Your task to perform on an android device: allow cookies in the chrome app Image 0: 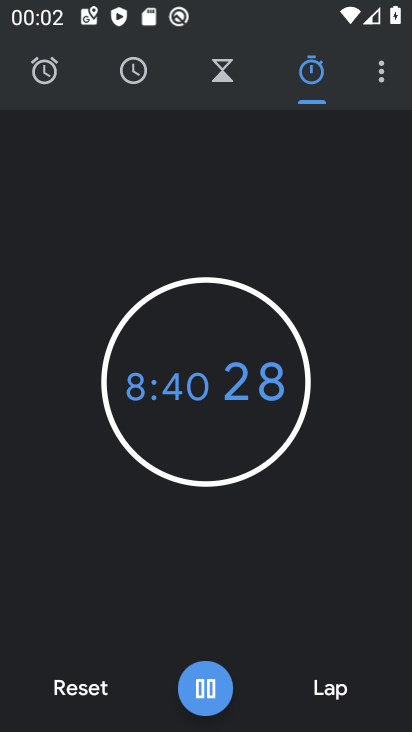
Step 0: press home button
Your task to perform on an android device: allow cookies in the chrome app Image 1: 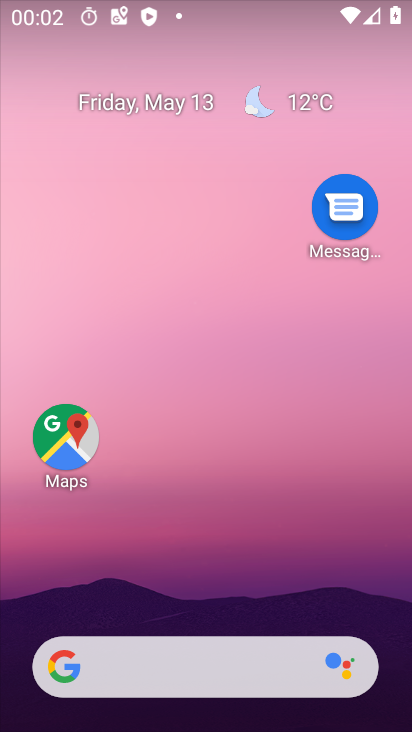
Step 1: drag from (286, 559) to (259, 50)
Your task to perform on an android device: allow cookies in the chrome app Image 2: 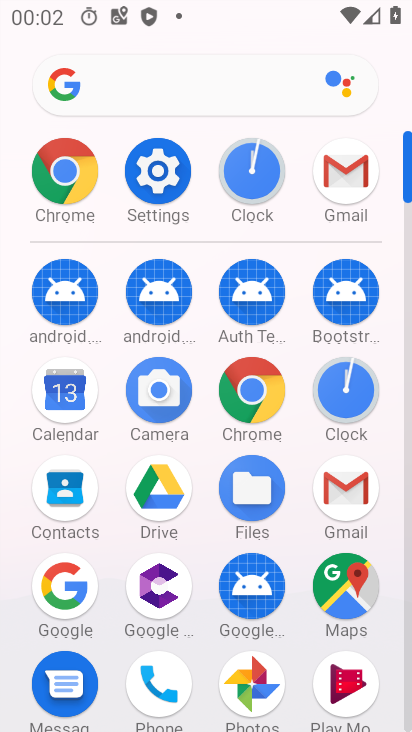
Step 2: click (270, 394)
Your task to perform on an android device: allow cookies in the chrome app Image 3: 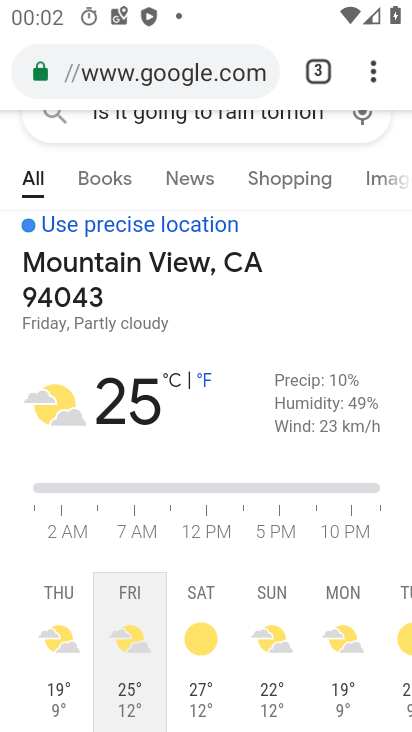
Step 3: drag from (376, 77) to (165, 565)
Your task to perform on an android device: allow cookies in the chrome app Image 4: 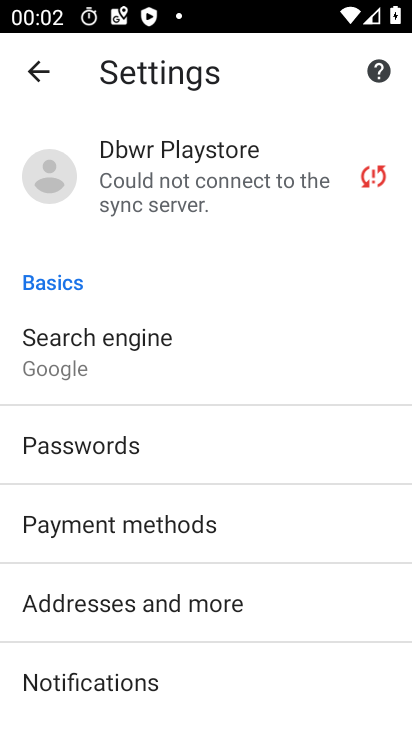
Step 4: drag from (231, 603) to (217, 170)
Your task to perform on an android device: allow cookies in the chrome app Image 5: 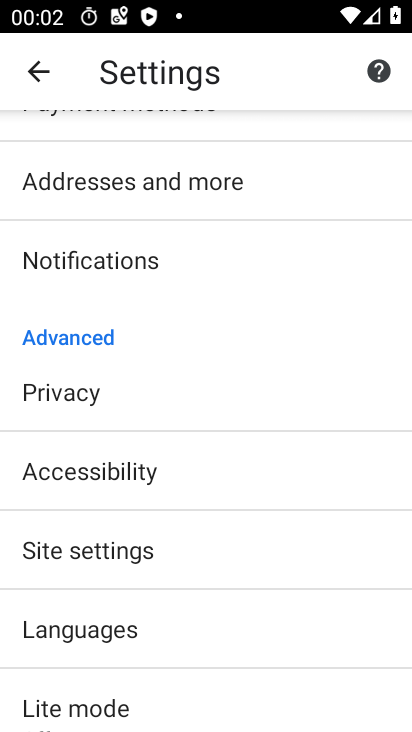
Step 5: click (84, 543)
Your task to perform on an android device: allow cookies in the chrome app Image 6: 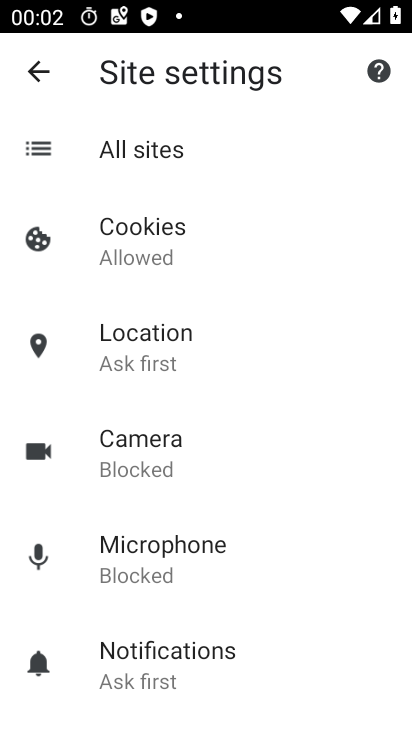
Step 6: task complete